Your task to perform on an android device: Open network settings Image 0: 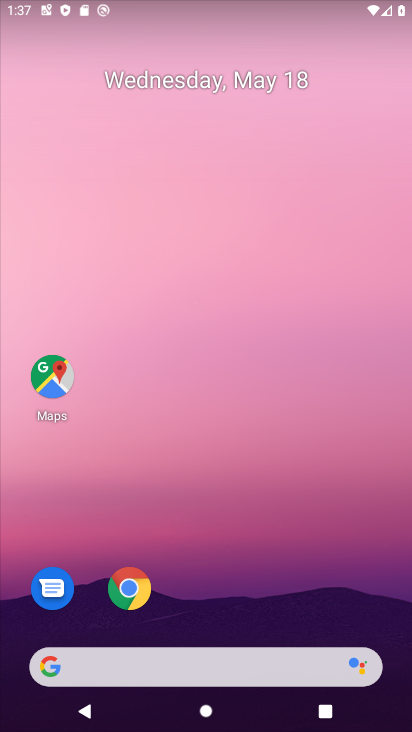
Step 0: drag from (376, 599) to (342, 137)
Your task to perform on an android device: Open network settings Image 1: 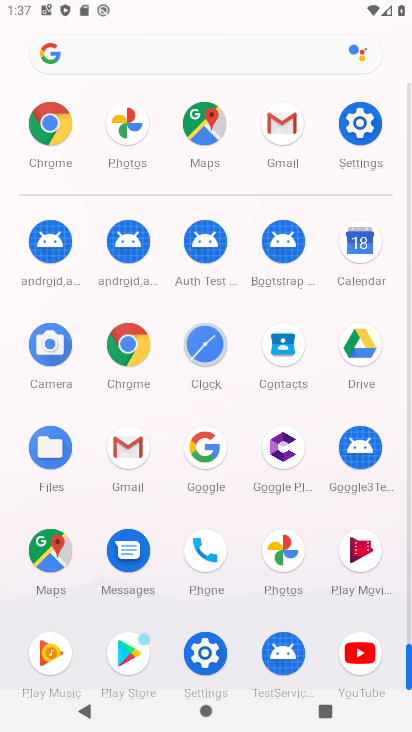
Step 1: click (346, 128)
Your task to perform on an android device: Open network settings Image 2: 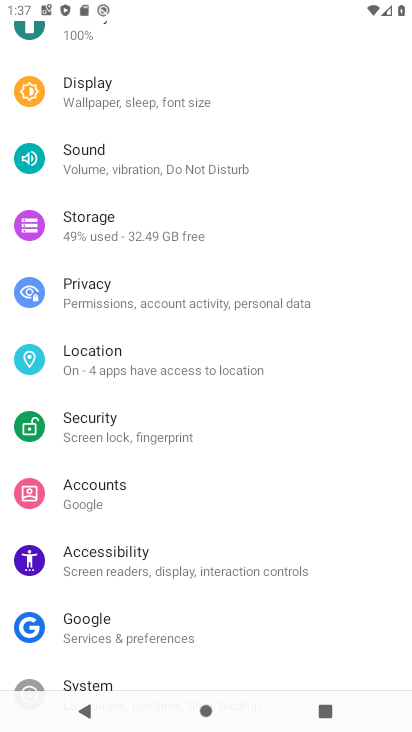
Step 2: drag from (340, 612) to (347, 471)
Your task to perform on an android device: Open network settings Image 3: 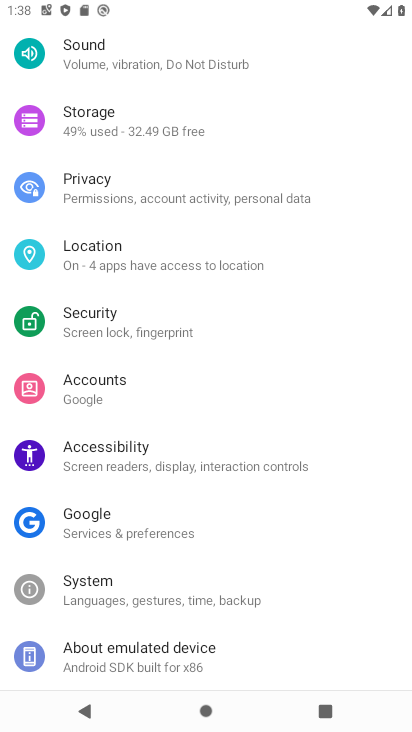
Step 3: drag from (329, 626) to (335, 435)
Your task to perform on an android device: Open network settings Image 4: 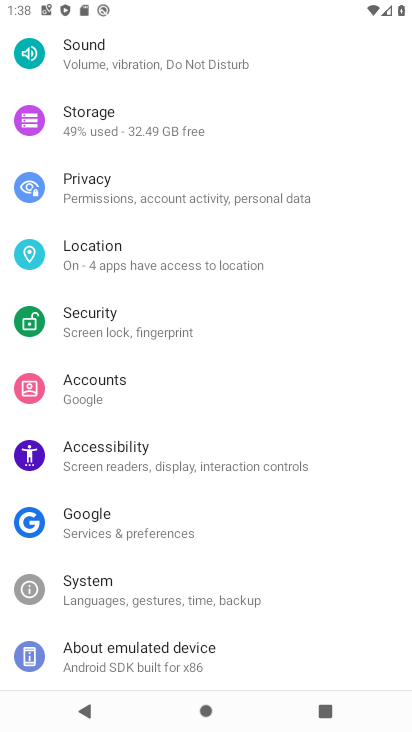
Step 4: drag from (319, 584) to (339, 406)
Your task to perform on an android device: Open network settings Image 5: 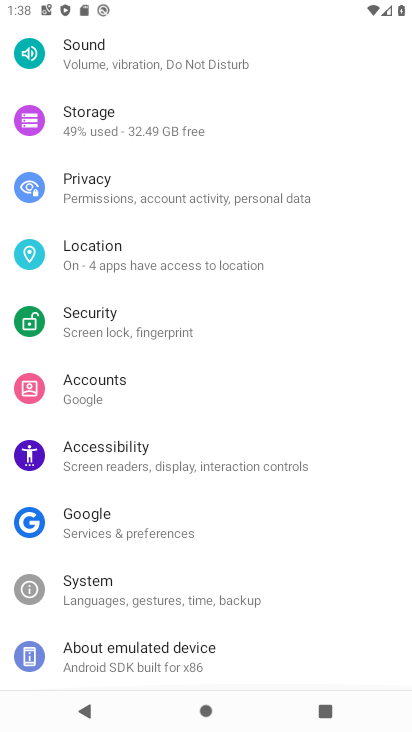
Step 5: drag from (337, 318) to (322, 517)
Your task to perform on an android device: Open network settings Image 6: 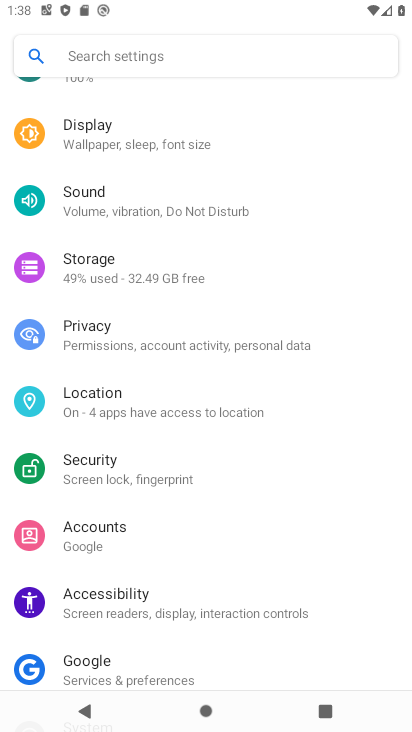
Step 6: drag from (336, 307) to (339, 482)
Your task to perform on an android device: Open network settings Image 7: 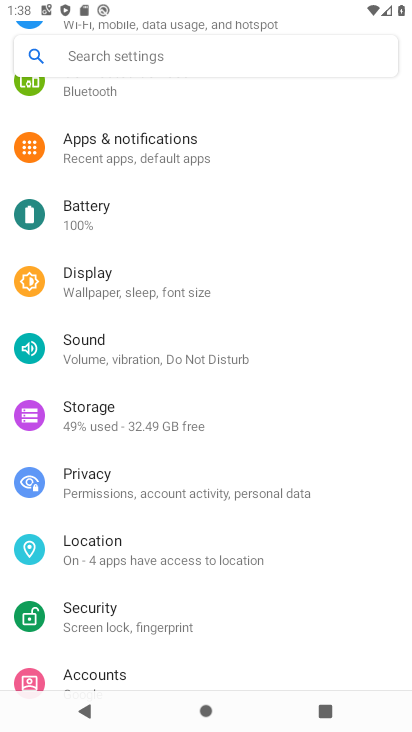
Step 7: drag from (332, 251) to (334, 485)
Your task to perform on an android device: Open network settings Image 8: 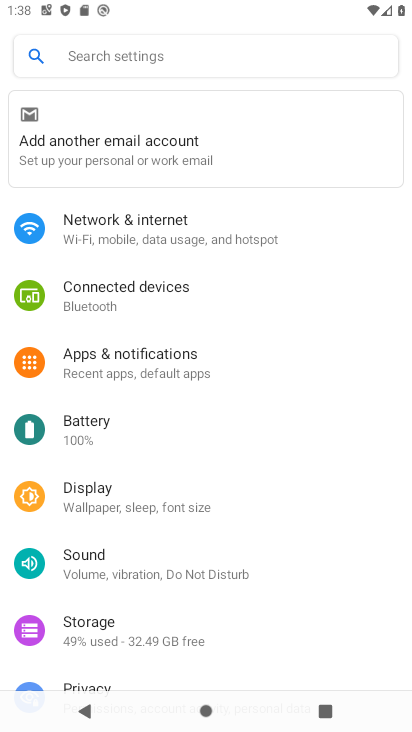
Step 8: drag from (343, 304) to (324, 492)
Your task to perform on an android device: Open network settings Image 9: 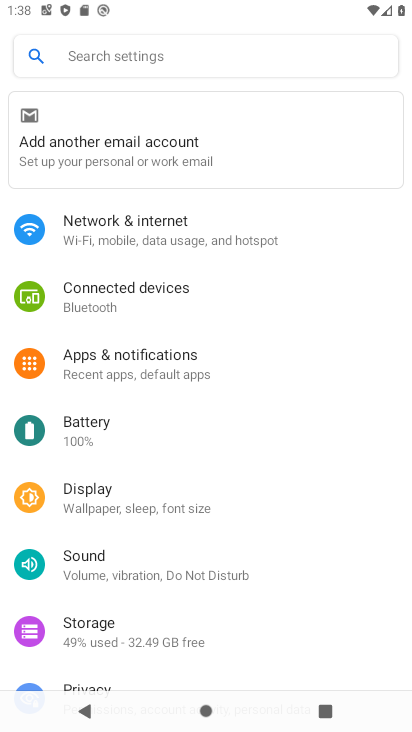
Step 9: click (216, 226)
Your task to perform on an android device: Open network settings Image 10: 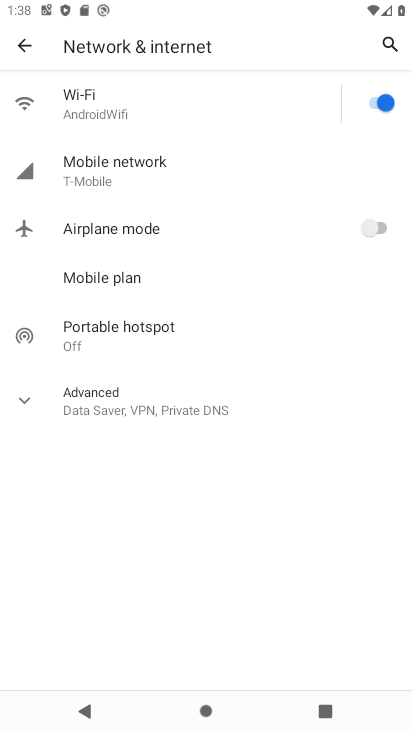
Step 10: task complete